Your task to perform on an android device: create a new album in the google photos Image 0: 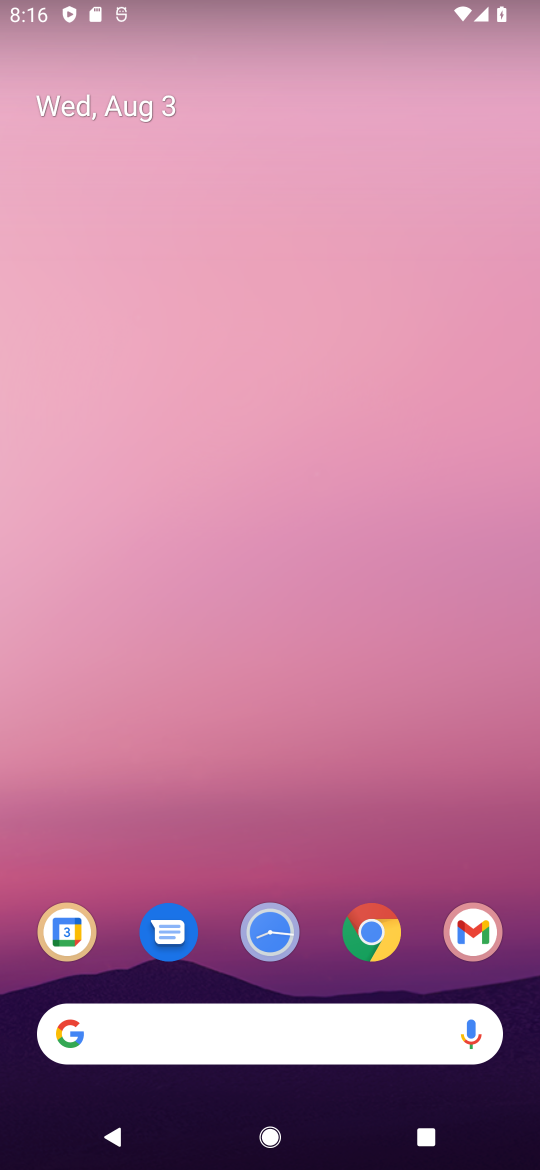
Step 0: drag from (294, 997) to (314, 443)
Your task to perform on an android device: create a new album in the google photos Image 1: 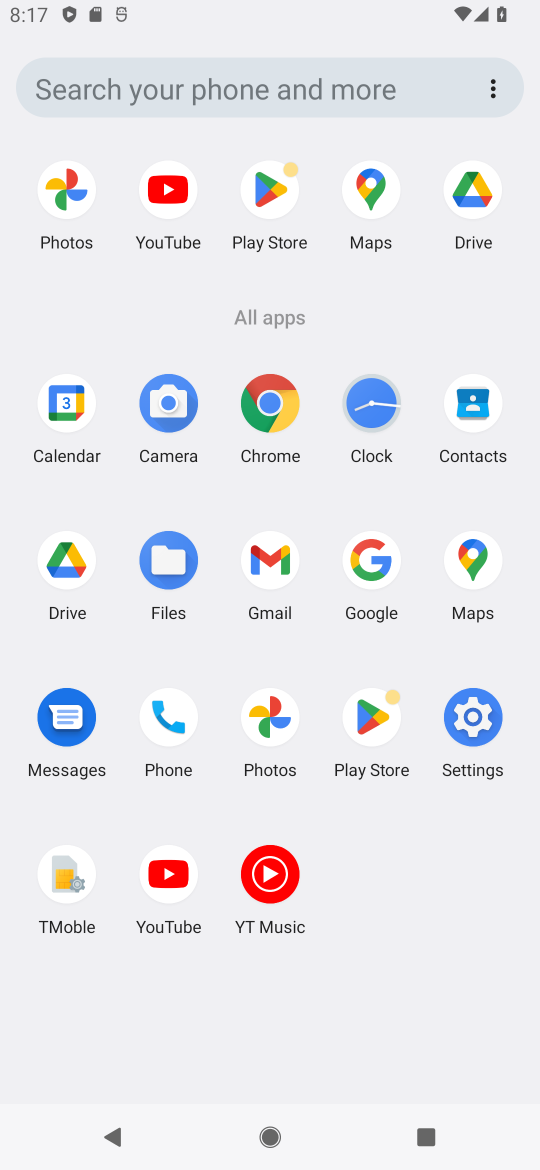
Step 1: click (262, 722)
Your task to perform on an android device: create a new album in the google photos Image 2: 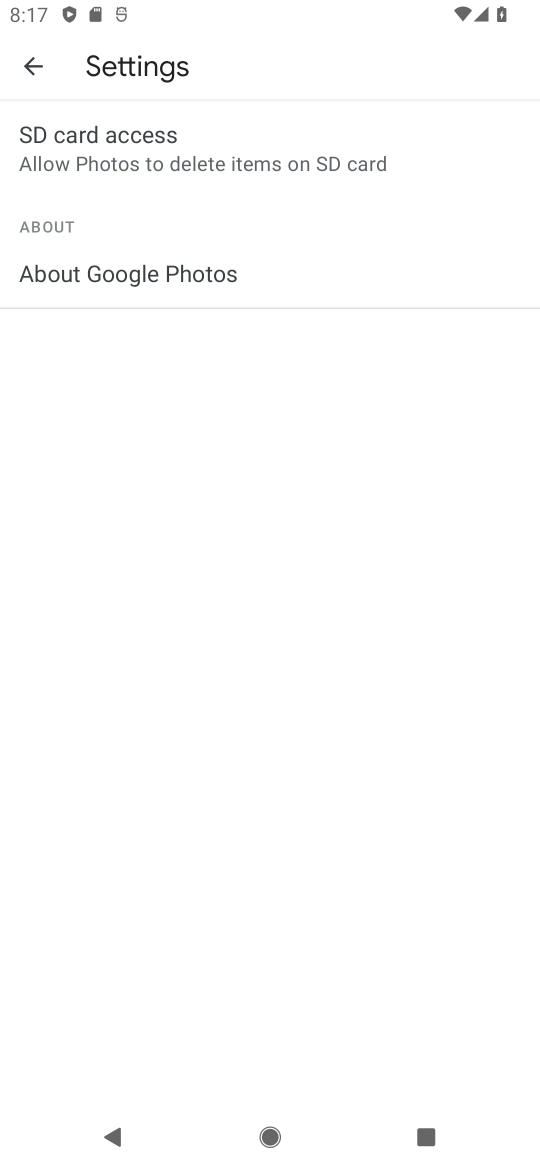
Step 2: click (27, 72)
Your task to perform on an android device: create a new album in the google photos Image 3: 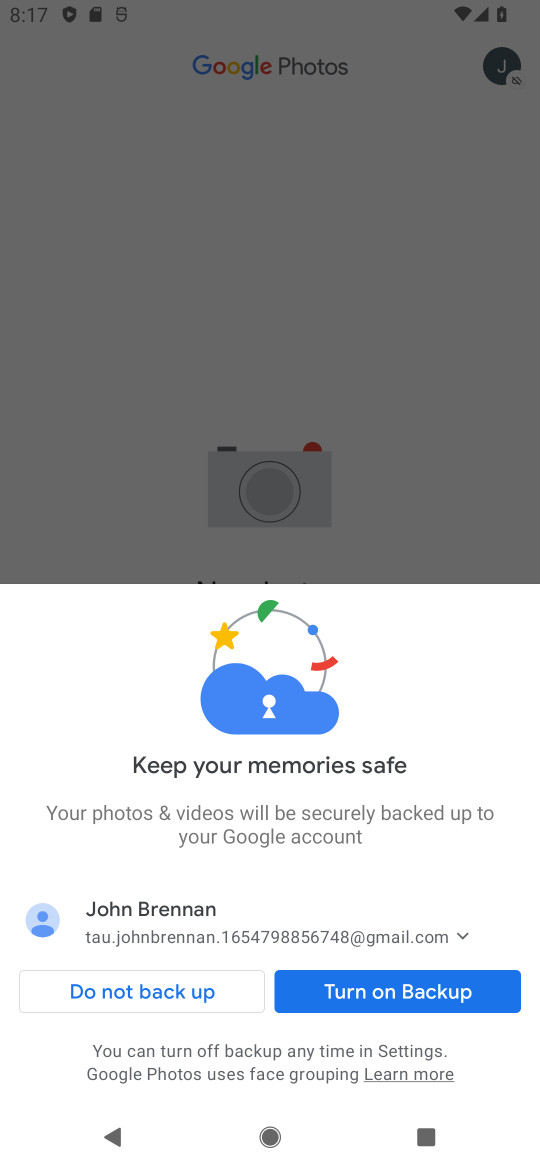
Step 3: click (362, 994)
Your task to perform on an android device: create a new album in the google photos Image 4: 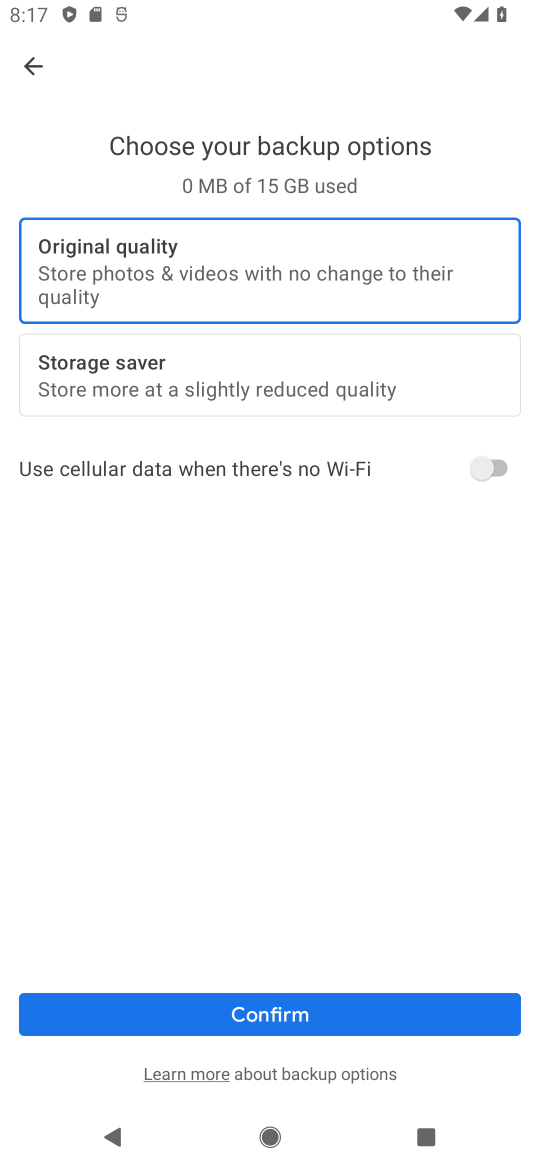
Step 4: click (282, 1003)
Your task to perform on an android device: create a new album in the google photos Image 5: 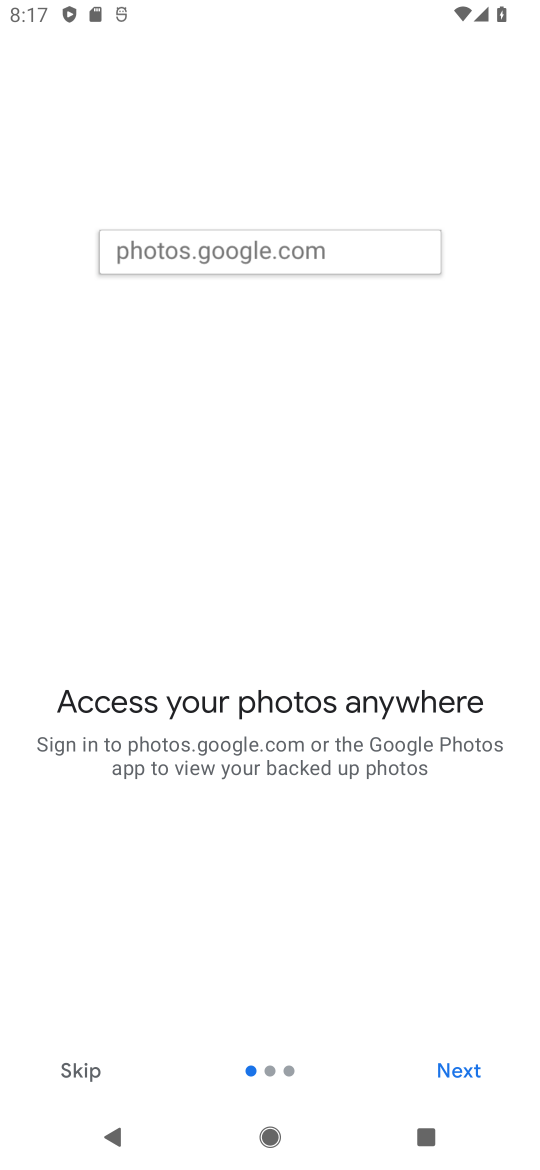
Step 5: click (436, 1052)
Your task to perform on an android device: create a new album in the google photos Image 6: 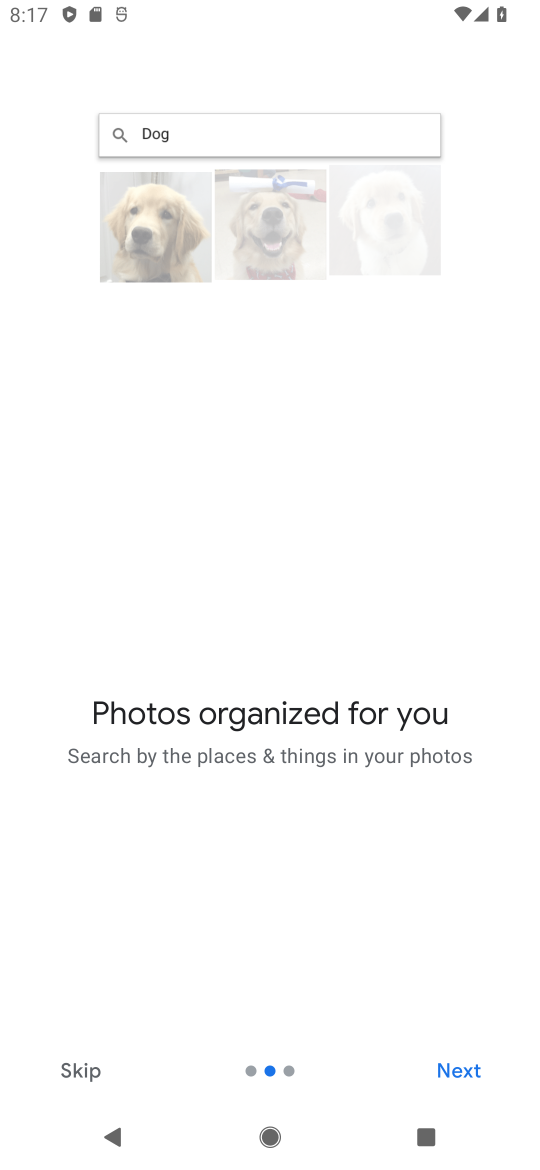
Step 6: click (460, 1065)
Your task to perform on an android device: create a new album in the google photos Image 7: 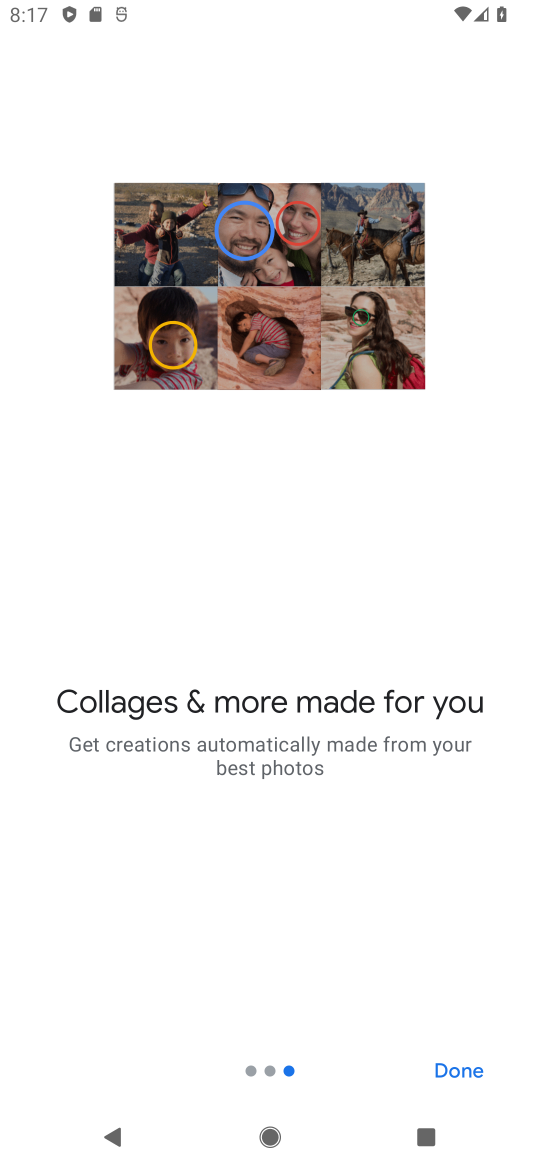
Step 7: click (460, 1065)
Your task to perform on an android device: create a new album in the google photos Image 8: 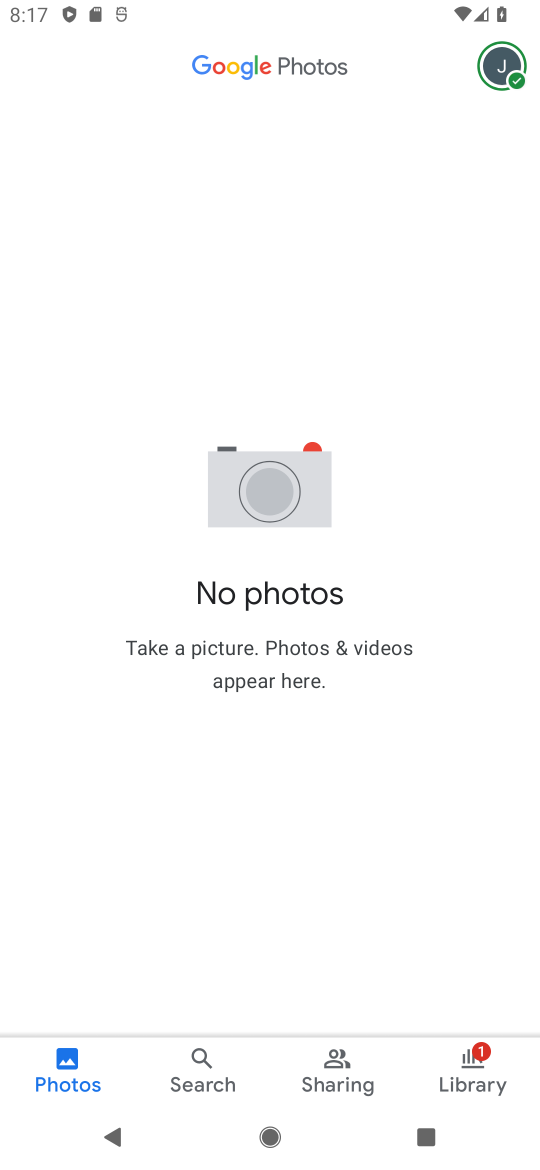
Step 8: click (461, 1068)
Your task to perform on an android device: create a new album in the google photos Image 9: 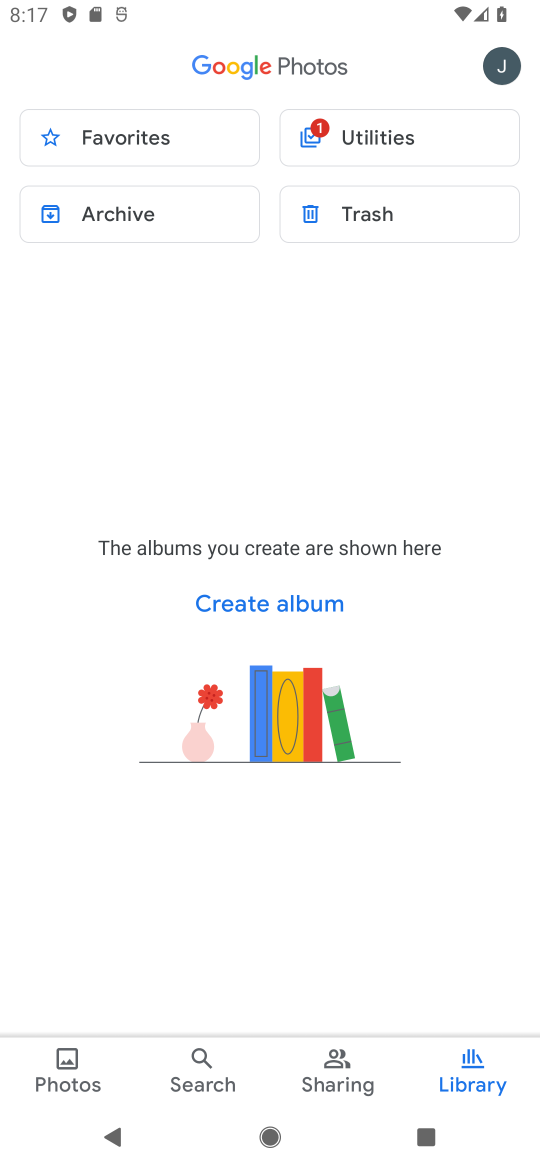
Step 9: click (330, 1072)
Your task to perform on an android device: create a new album in the google photos Image 10: 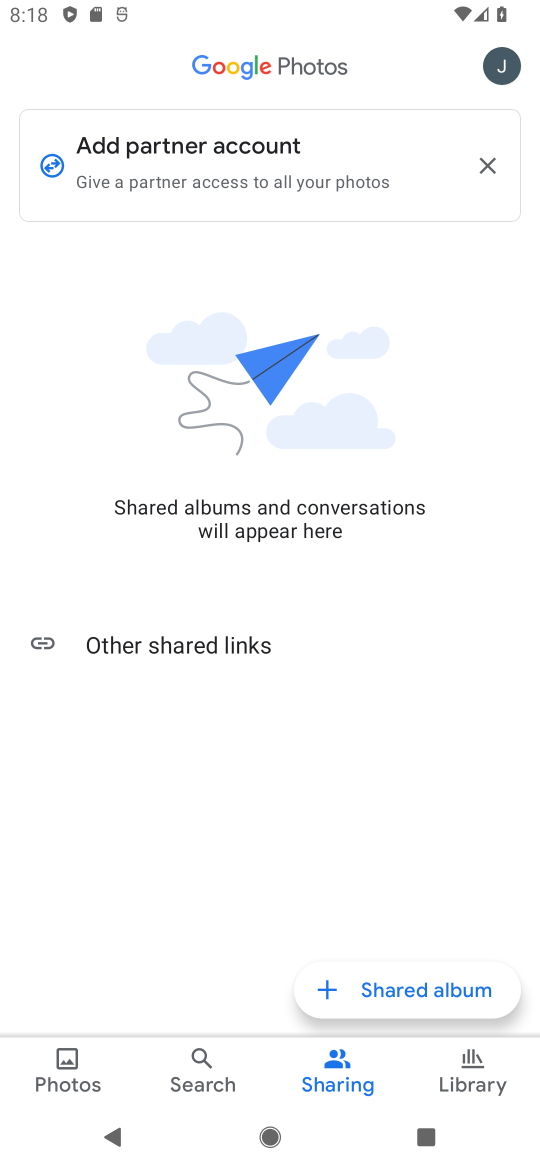
Step 10: click (406, 994)
Your task to perform on an android device: create a new album in the google photos Image 11: 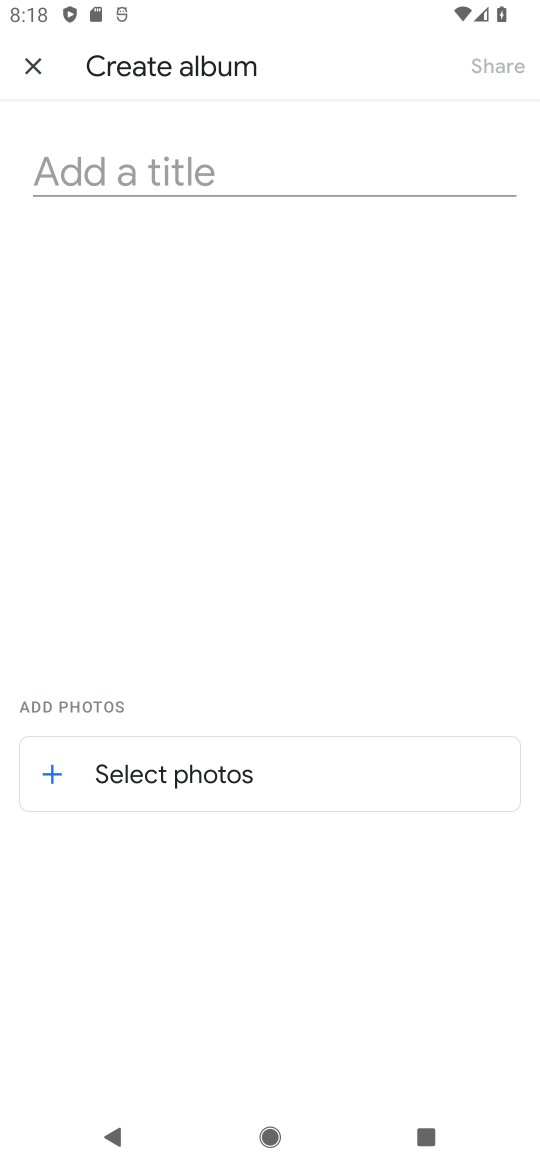
Step 11: click (110, 170)
Your task to perform on an android device: create a new album in the google photos Image 12: 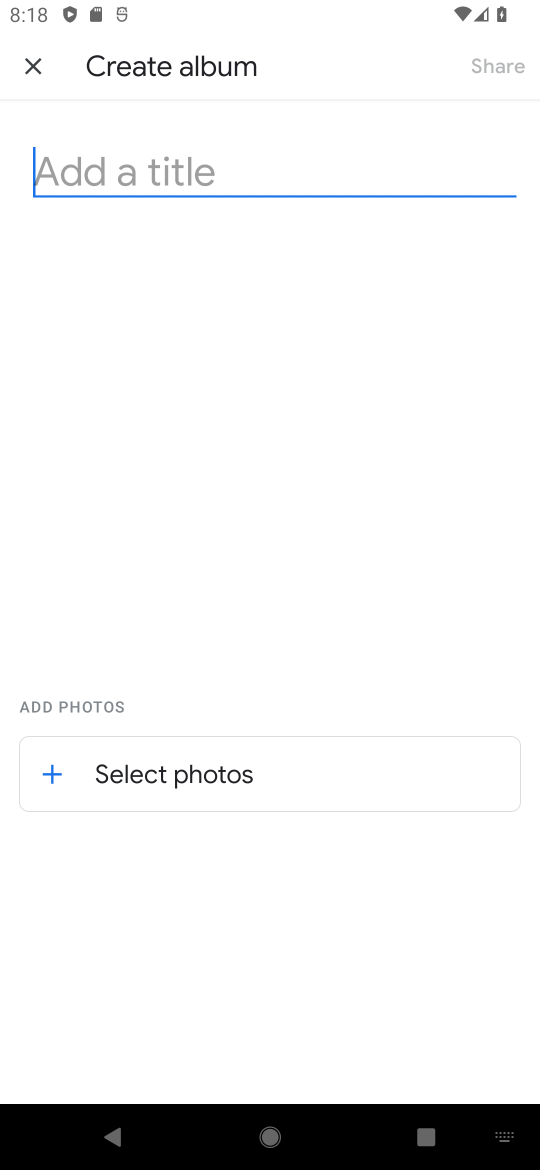
Step 12: type "album 09"
Your task to perform on an android device: create a new album in the google photos Image 13: 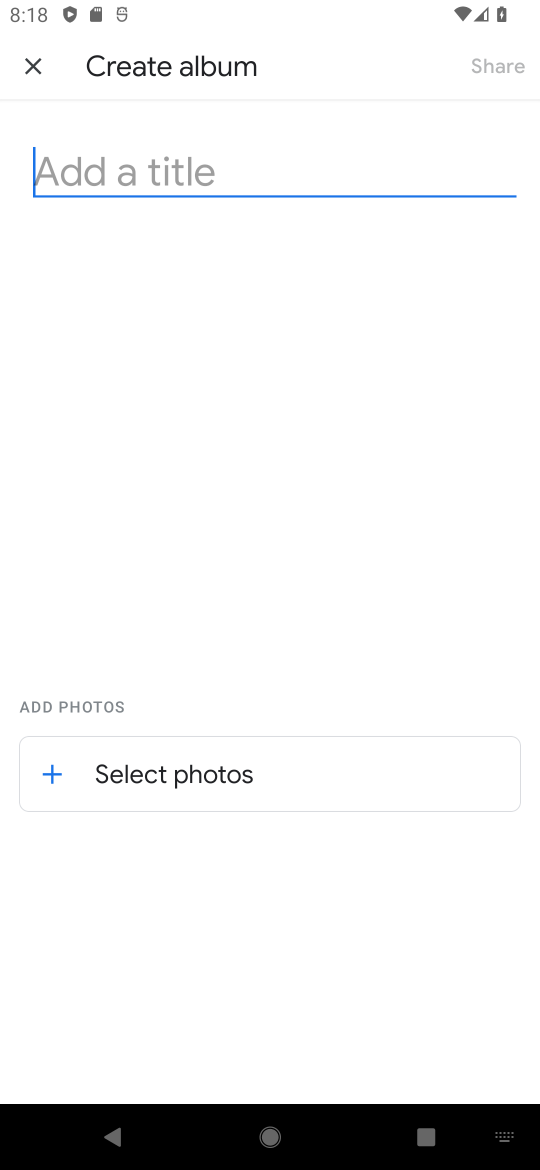
Step 13: click (197, 769)
Your task to perform on an android device: create a new album in the google photos Image 14: 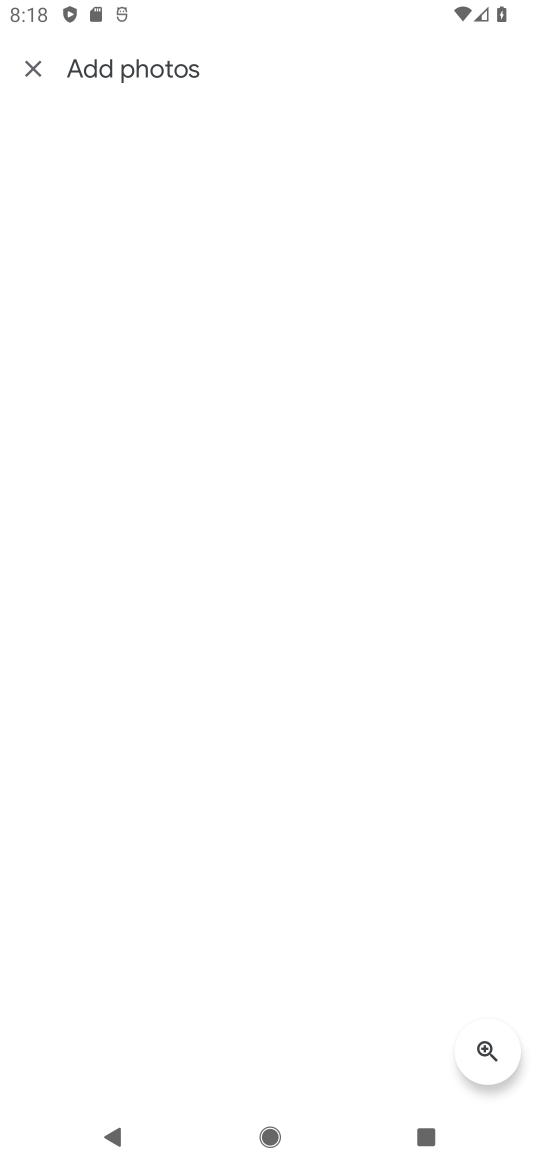
Step 14: task complete